Your task to perform on an android device: Is it going to rain this weekend? Image 0: 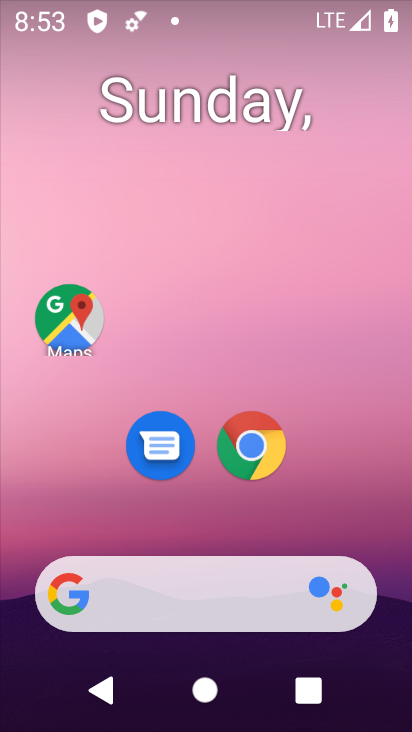
Step 0: drag from (184, 530) to (177, 193)
Your task to perform on an android device: Is it going to rain this weekend? Image 1: 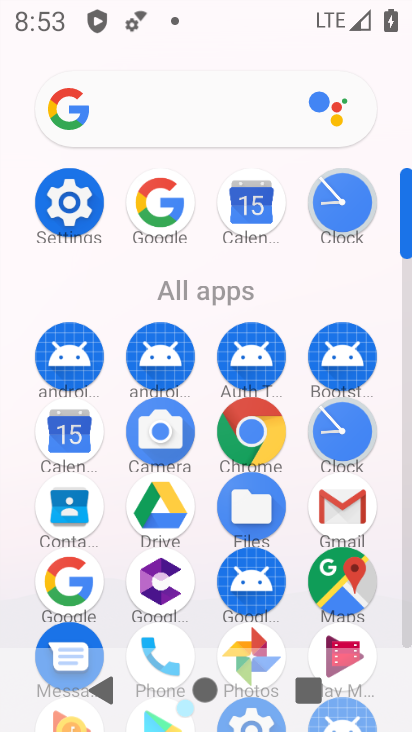
Step 1: click (169, 222)
Your task to perform on an android device: Is it going to rain this weekend? Image 2: 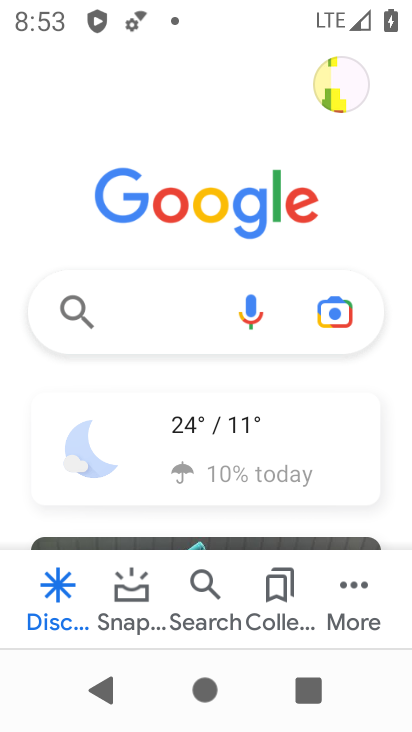
Step 2: click (205, 481)
Your task to perform on an android device: Is it going to rain this weekend? Image 3: 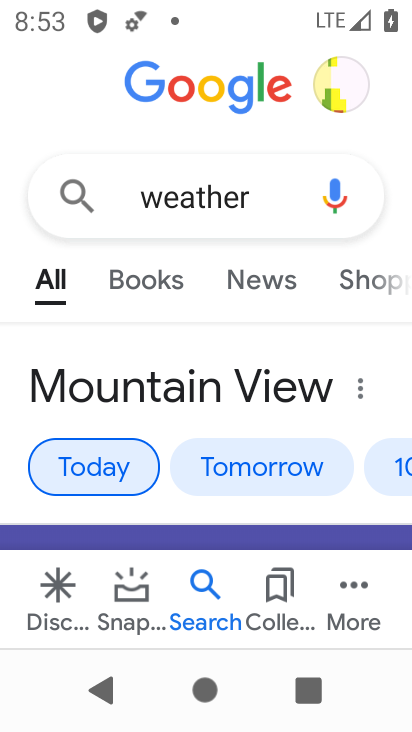
Step 3: click (399, 471)
Your task to perform on an android device: Is it going to rain this weekend? Image 4: 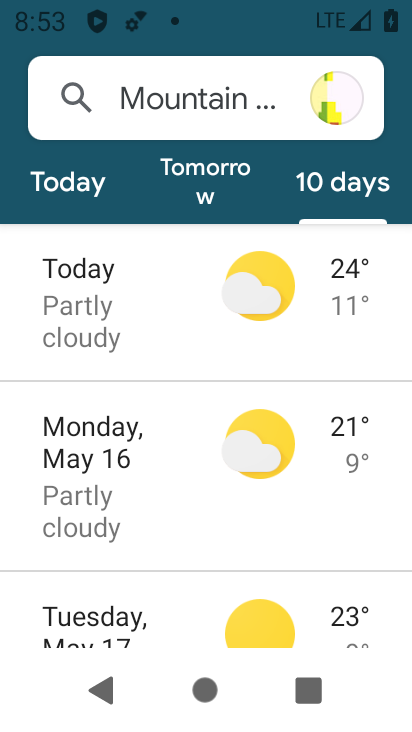
Step 4: task complete